Your task to perform on an android device: check battery use Image 0: 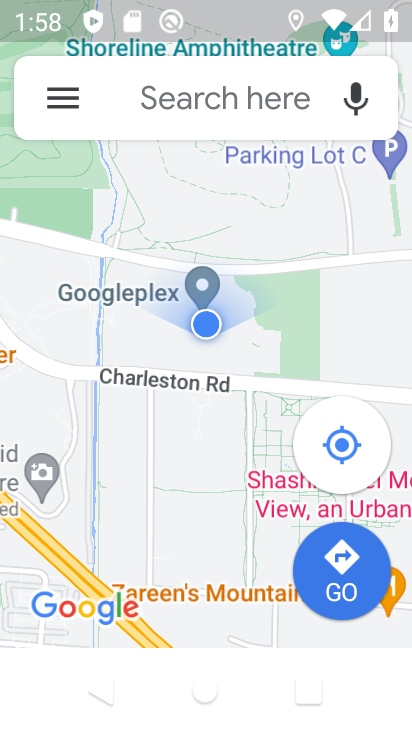
Step 0: press home button
Your task to perform on an android device: check battery use Image 1: 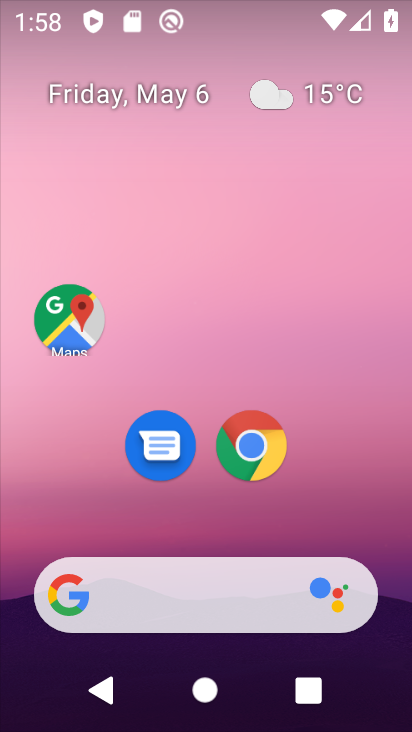
Step 1: drag from (357, 536) to (197, 106)
Your task to perform on an android device: check battery use Image 2: 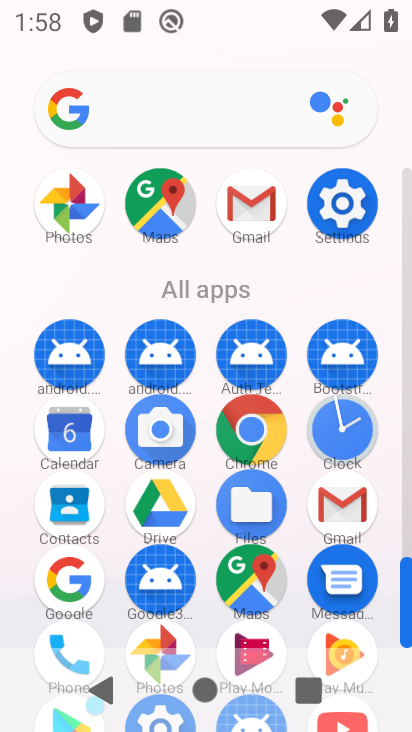
Step 2: click (341, 199)
Your task to perform on an android device: check battery use Image 3: 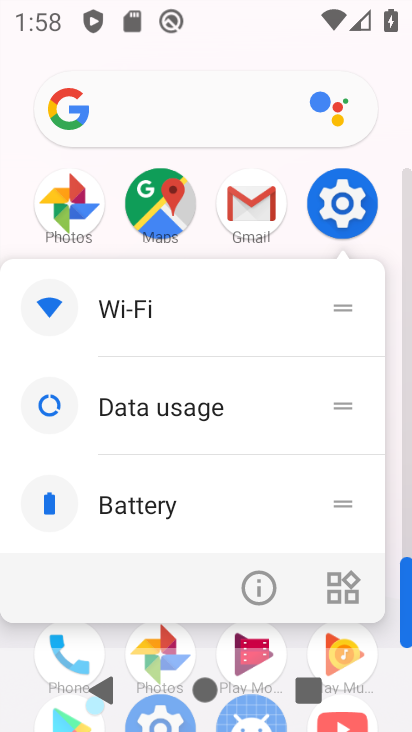
Step 3: click (162, 505)
Your task to perform on an android device: check battery use Image 4: 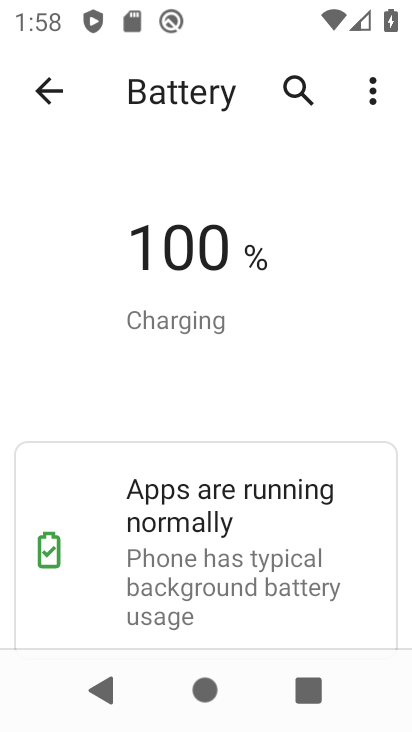
Step 4: task complete